Your task to perform on an android device: turn off data saver in the chrome app Image 0: 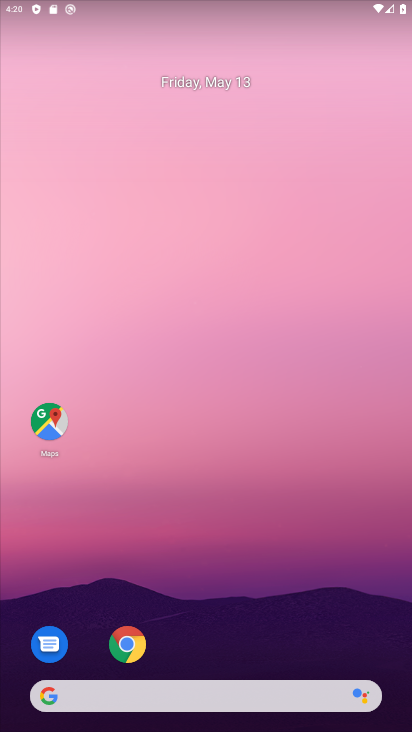
Step 0: click (139, 635)
Your task to perform on an android device: turn off data saver in the chrome app Image 1: 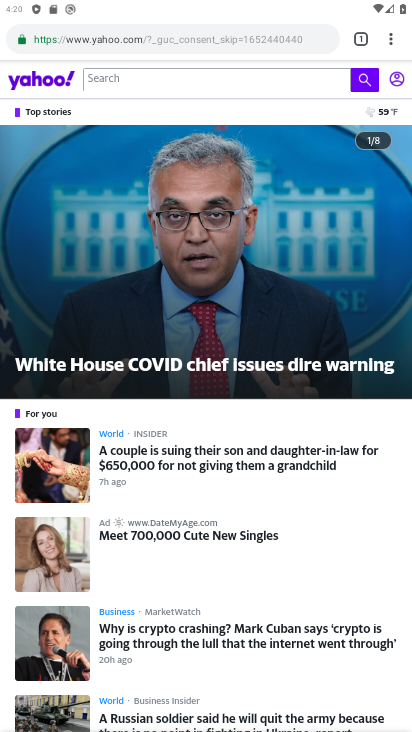
Step 1: drag from (395, 37) to (264, 442)
Your task to perform on an android device: turn off data saver in the chrome app Image 2: 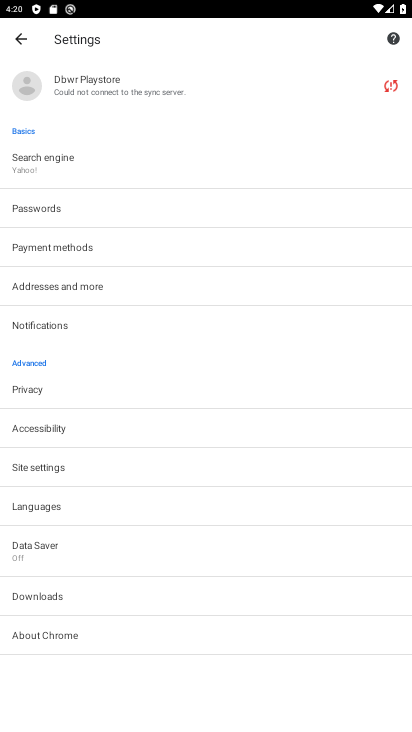
Step 2: click (74, 555)
Your task to perform on an android device: turn off data saver in the chrome app Image 3: 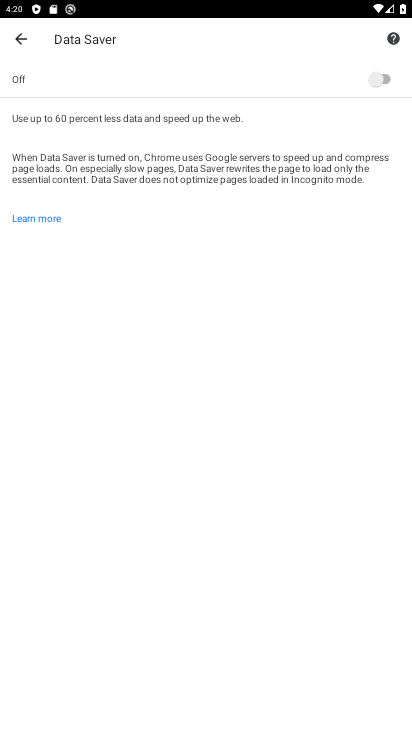
Step 3: task complete